Your task to perform on an android device: Open Google Chrome and click the shortcut for Amazon.com Image 0: 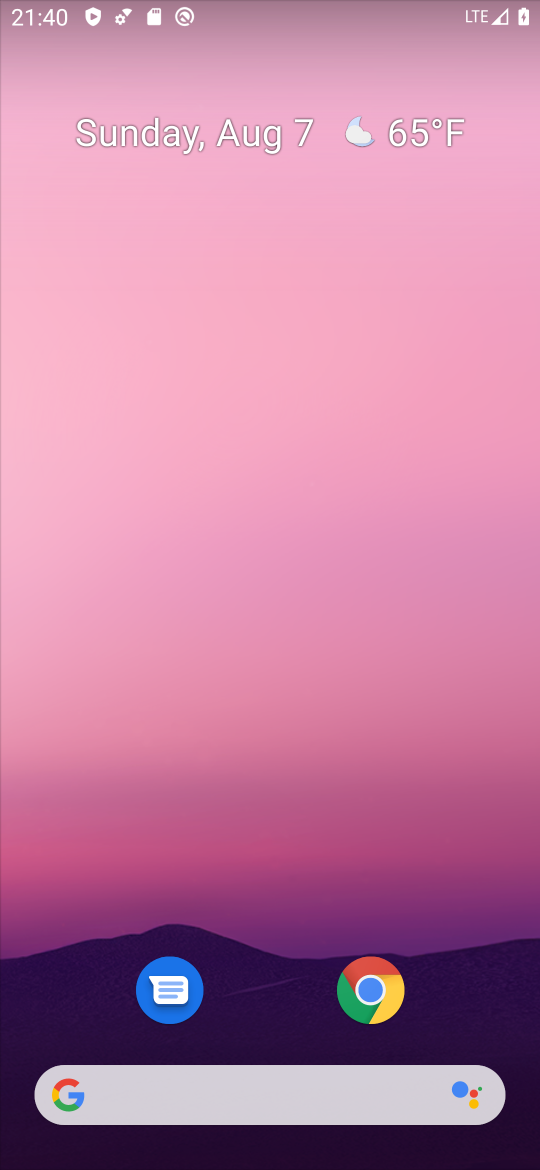
Step 0: click (372, 991)
Your task to perform on an android device: Open Google Chrome and click the shortcut for Amazon.com Image 1: 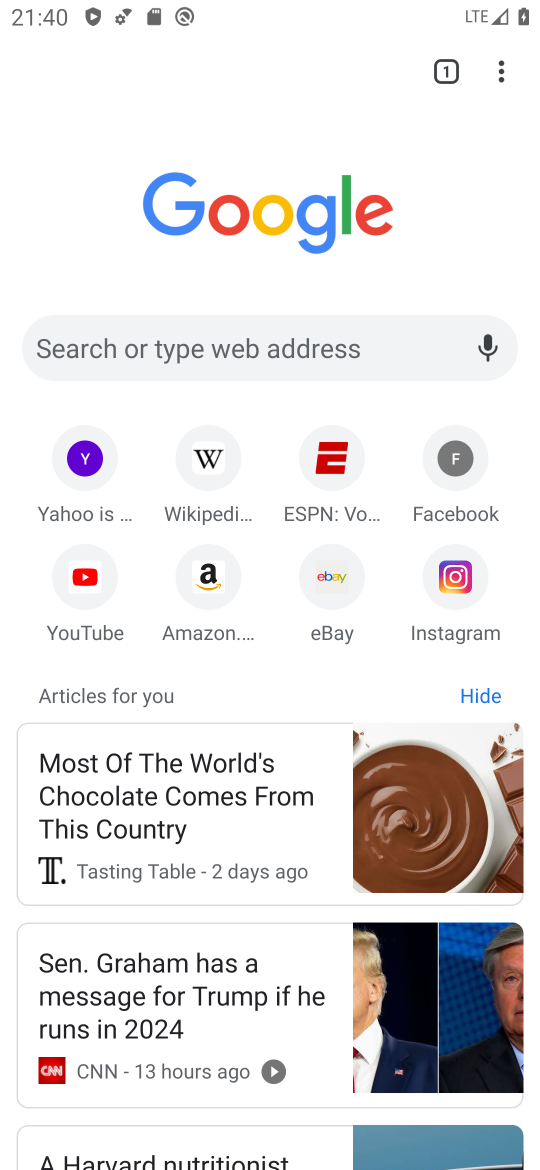
Step 1: click (204, 578)
Your task to perform on an android device: Open Google Chrome and click the shortcut for Amazon.com Image 2: 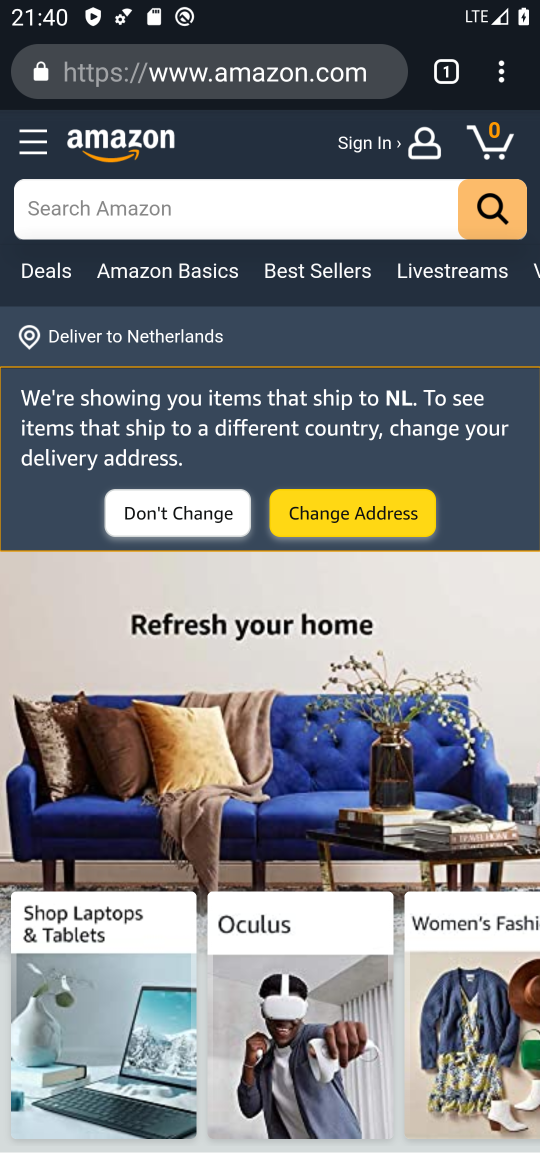
Step 2: task complete